Your task to perform on an android device: toggle wifi Image 0: 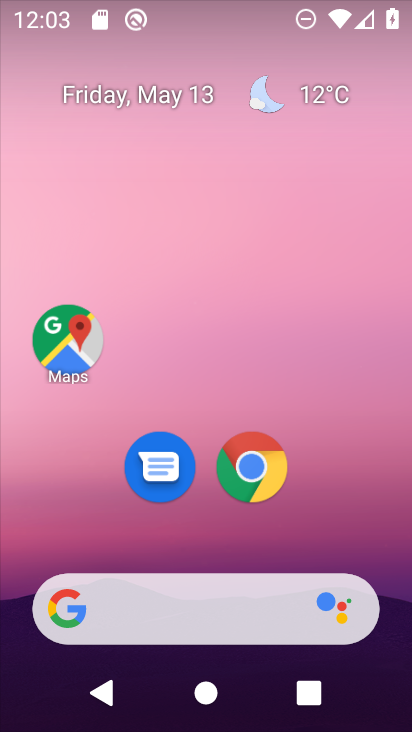
Step 0: drag from (331, 494) to (268, 21)
Your task to perform on an android device: toggle wifi Image 1: 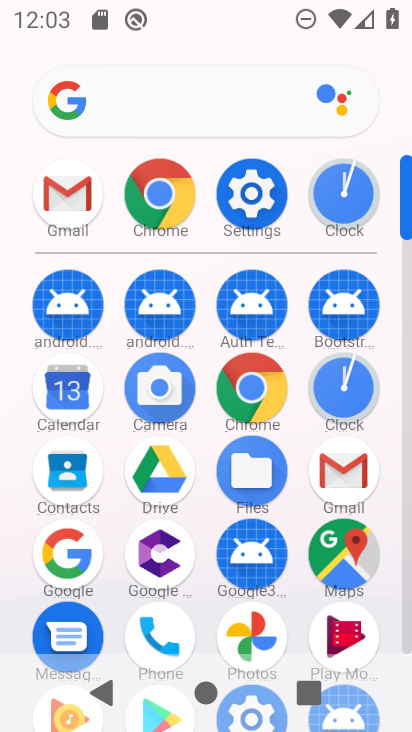
Step 1: drag from (8, 536) to (8, 235)
Your task to perform on an android device: toggle wifi Image 2: 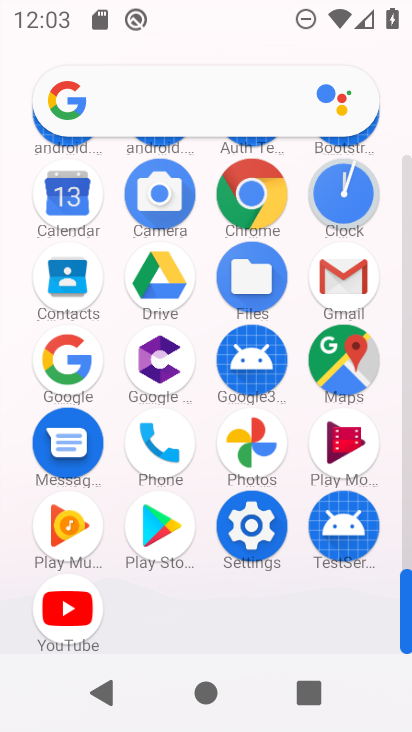
Step 2: click (251, 521)
Your task to perform on an android device: toggle wifi Image 3: 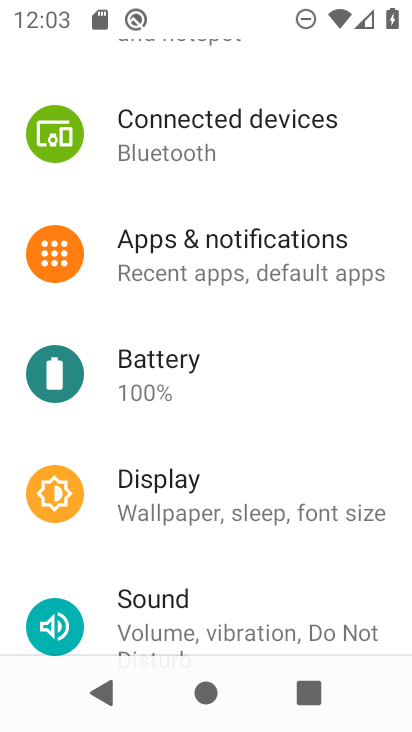
Step 3: drag from (269, 253) to (285, 583)
Your task to perform on an android device: toggle wifi Image 4: 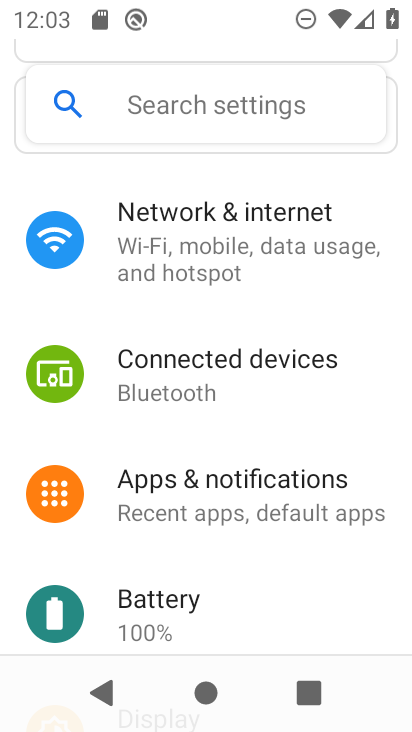
Step 4: drag from (291, 276) to (290, 498)
Your task to perform on an android device: toggle wifi Image 5: 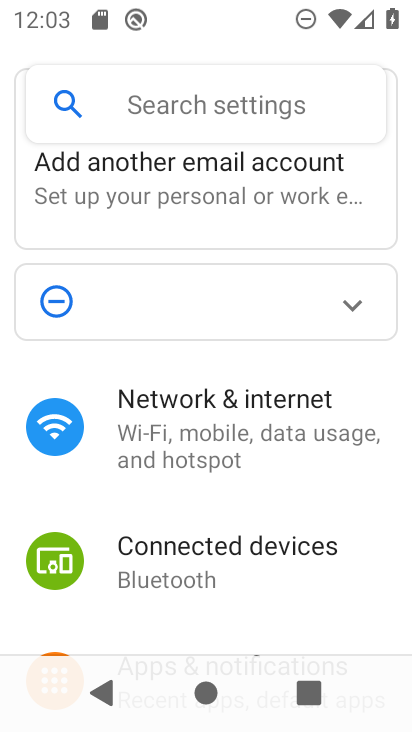
Step 5: click (233, 430)
Your task to perform on an android device: toggle wifi Image 6: 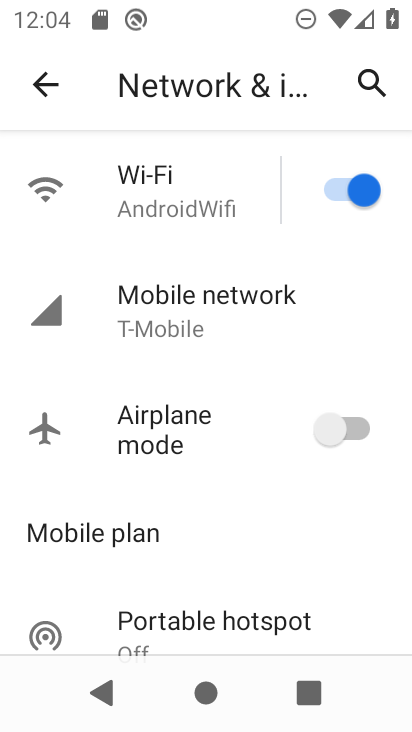
Step 6: click (314, 179)
Your task to perform on an android device: toggle wifi Image 7: 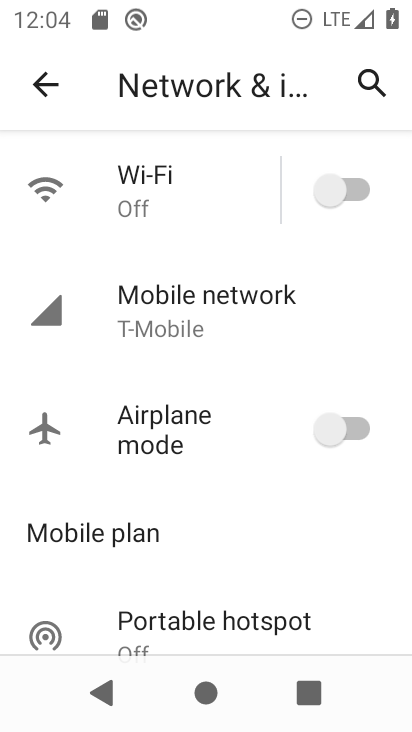
Step 7: task complete